Your task to perform on an android device: toggle improve location accuracy Image 0: 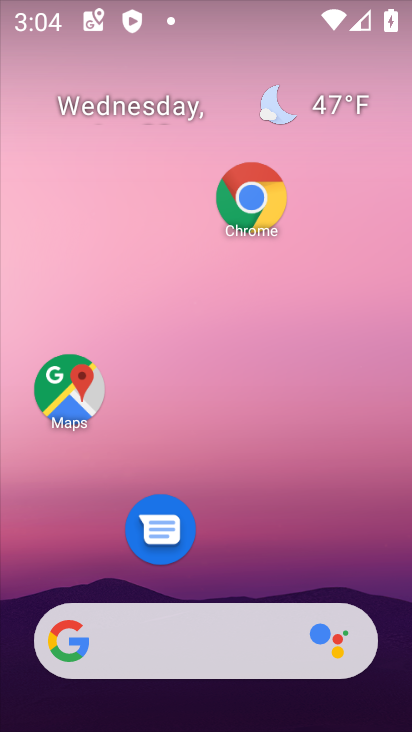
Step 0: drag from (273, 514) to (264, 84)
Your task to perform on an android device: toggle improve location accuracy Image 1: 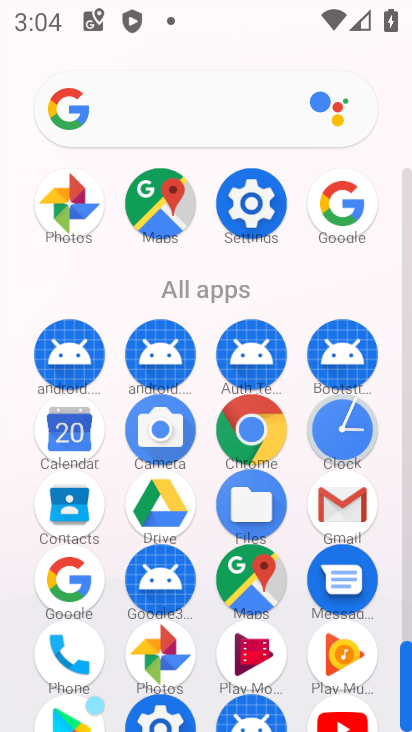
Step 1: click (259, 201)
Your task to perform on an android device: toggle improve location accuracy Image 2: 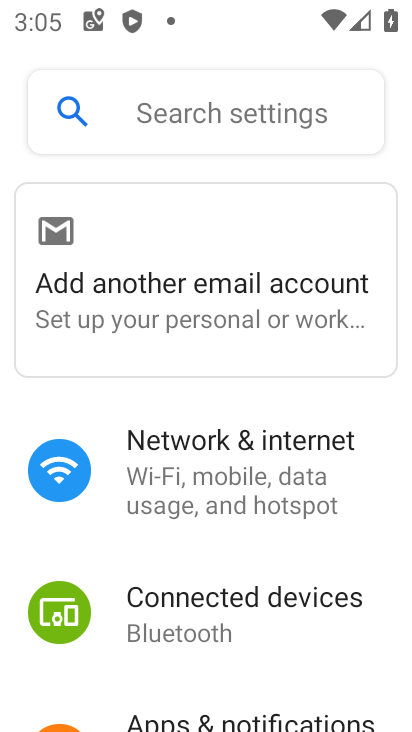
Step 2: drag from (254, 668) to (288, 116)
Your task to perform on an android device: toggle improve location accuracy Image 3: 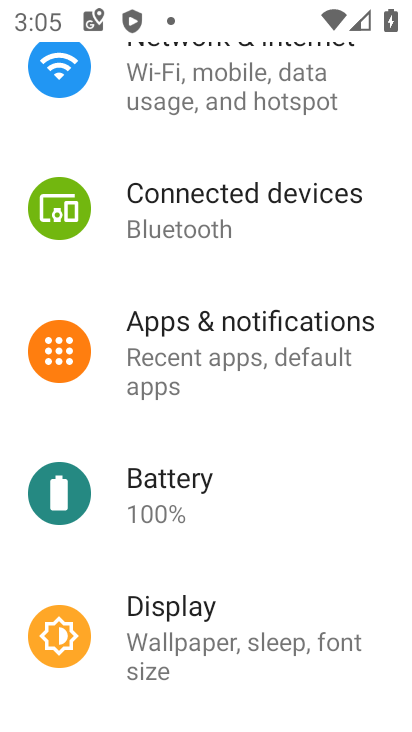
Step 3: drag from (263, 623) to (286, 210)
Your task to perform on an android device: toggle improve location accuracy Image 4: 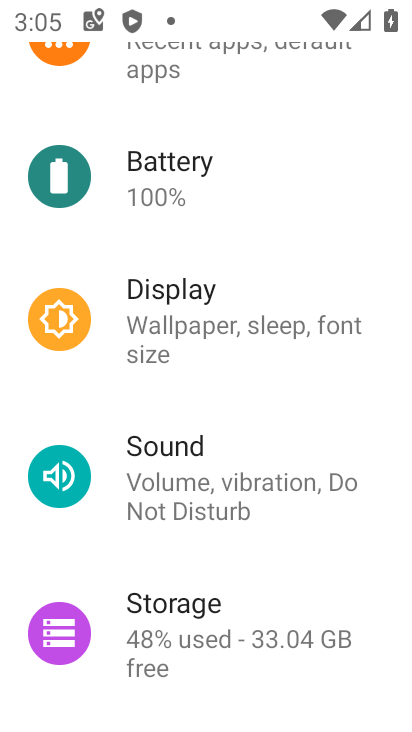
Step 4: drag from (229, 636) to (259, 211)
Your task to perform on an android device: toggle improve location accuracy Image 5: 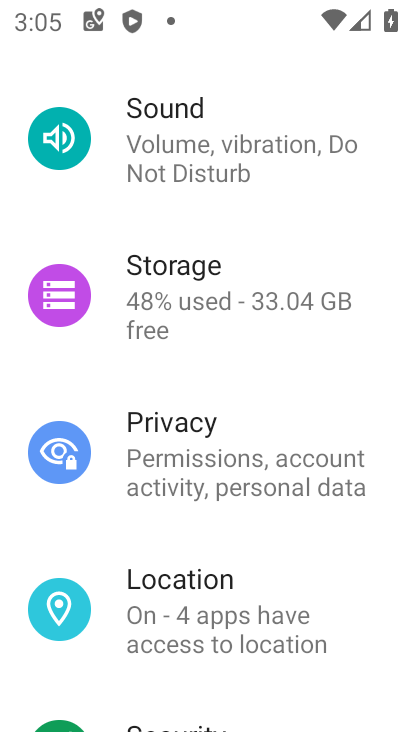
Step 5: click (215, 589)
Your task to perform on an android device: toggle improve location accuracy Image 6: 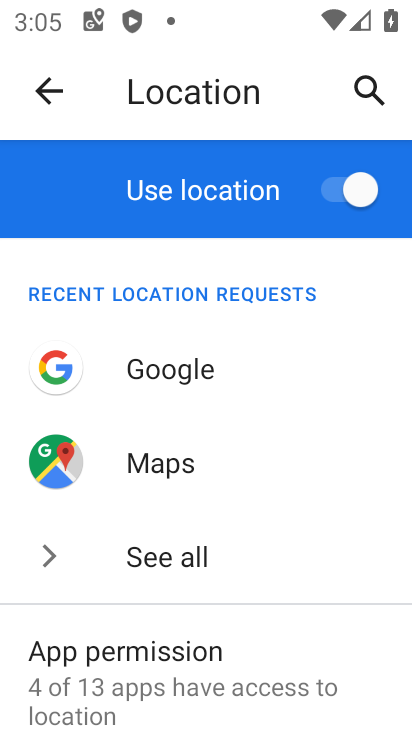
Step 6: drag from (304, 667) to (310, 303)
Your task to perform on an android device: toggle improve location accuracy Image 7: 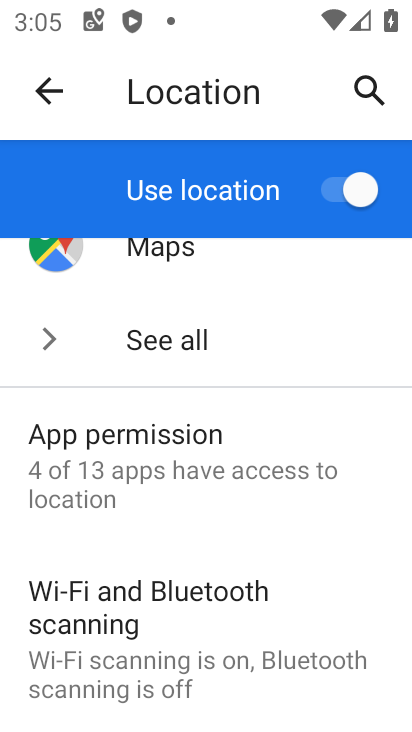
Step 7: drag from (272, 644) to (309, 321)
Your task to perform on an android device: toggle improve location accuracy Image 8: 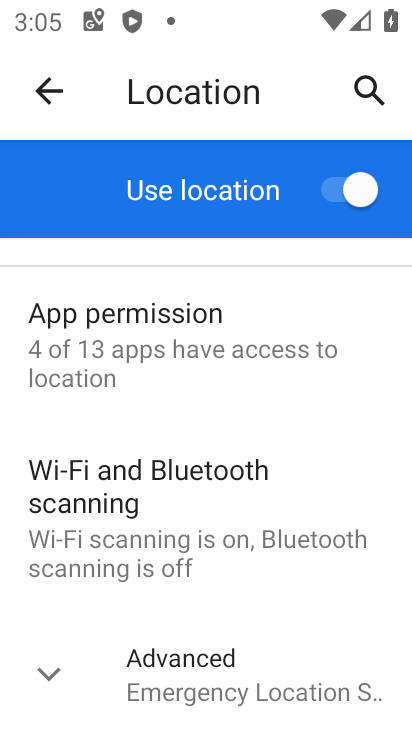
Step 8: drag from (285, 696) to (307, 333)
Your task to perform on an android device: toggle improve location accuracy Image 9: 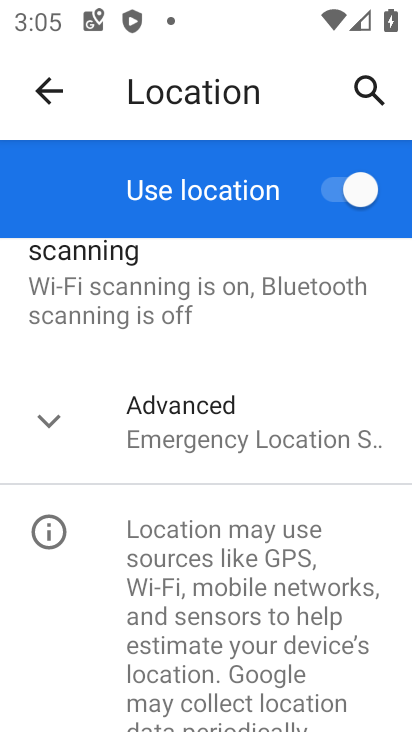
Step 9: click (240, 388)
Your task to perform on an android device: toggle improve location accuracy Image 10: 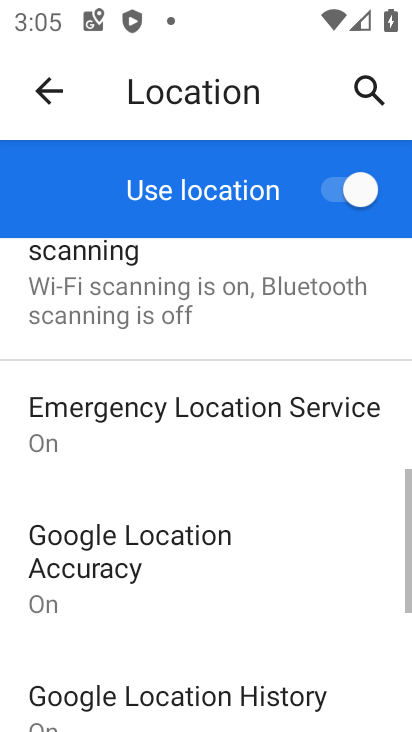
Step 10: drag from (286, 620) to (311, 322)
Your task to perform on an android device: toggle improve location accuracy Image 11: 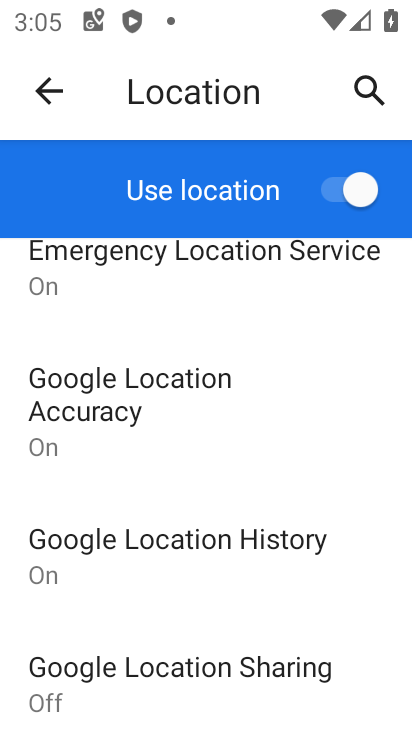
Step 11: click (187, 369)
Your task to perform on an android device: toggle improve location accuracy Image 12: 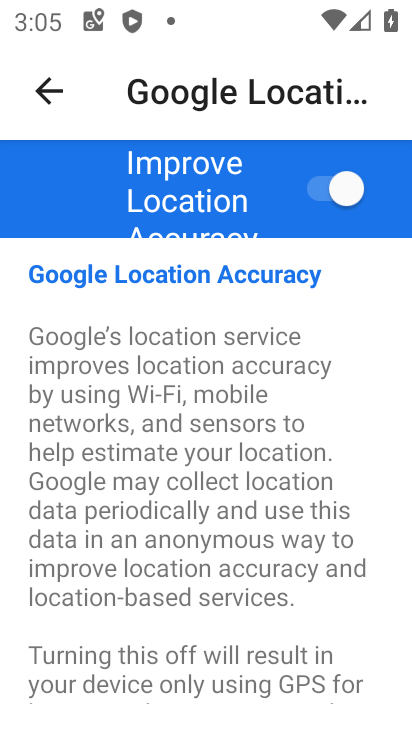
Step 12: click (334, 186)
Your task to perform on an android device: toggle improve location accuracy Image 13: 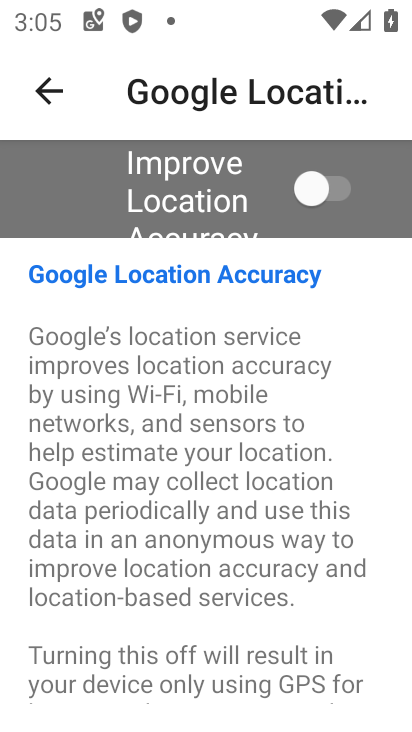
Step 13: task complete